Your task to perform on an android device: Turn off the flashlight Image 0: 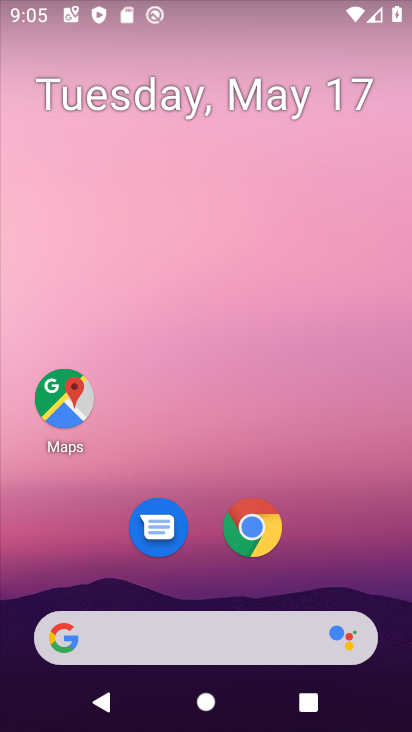
Step 0: press home button
Your task to perform on an android device: Turn off the flashlight Image 1: 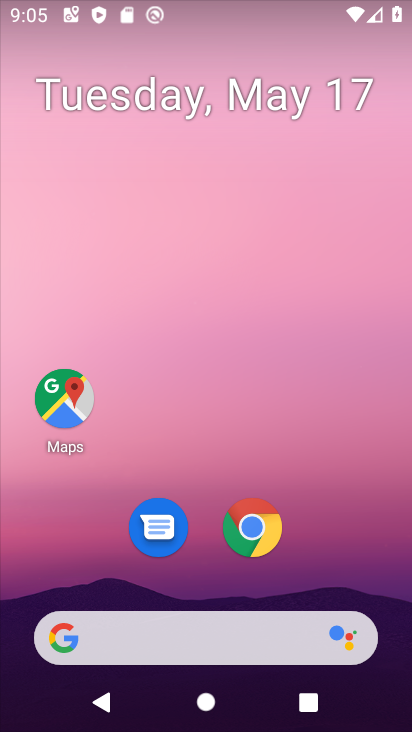
Step 1: task complete